Your task to perform on an android device: Open Reddit.com Image 0: 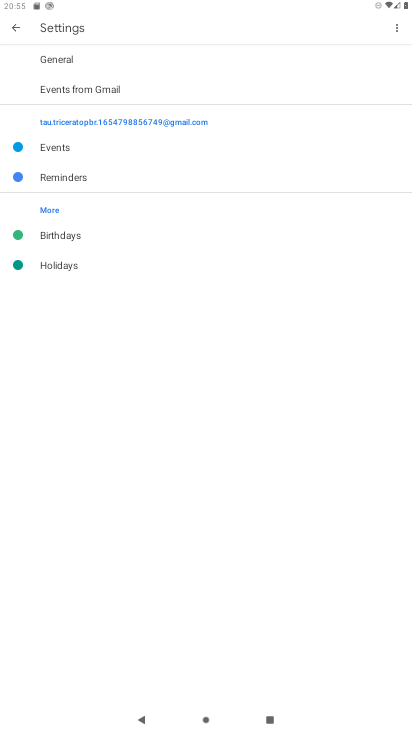
Step 0: drag from (94, 689) to (135, 71)
Your task to perform on an android device: Open Reddit.com Image 1: 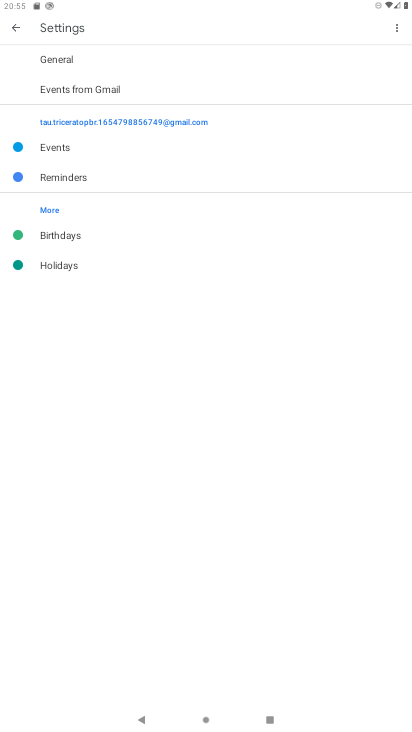
Step 1: press home button
Your task to perform on an android device: Open Reddit.com Image 2: 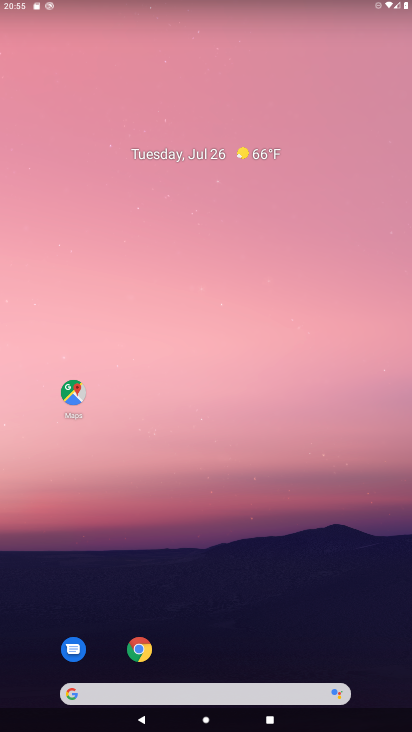
Step 2: click (132, 692)
Your task to perform on an android device: Open Reddit.com Image 3: 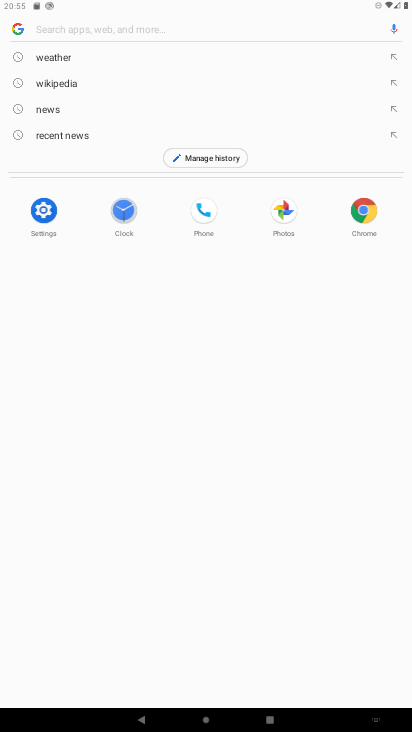
Step 3: type "reddit.com"
Your task to perform on an android device: Open Reddit.com Image 4: 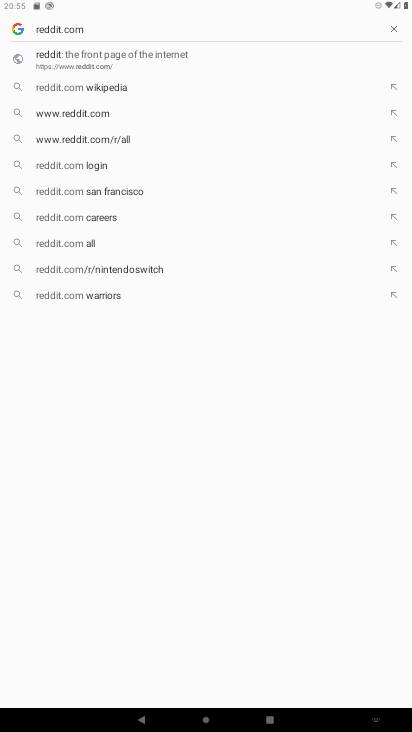
Step 4: click (224, 49)
Your task to perform on an android device: Open Reddit.com Image 5: 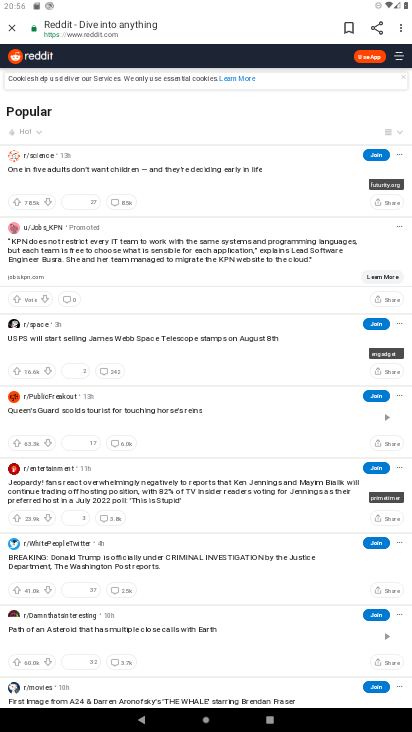
Step 5: task complete